Your task to perform on an android device: turn on the 12-hour format for clock Image 0: 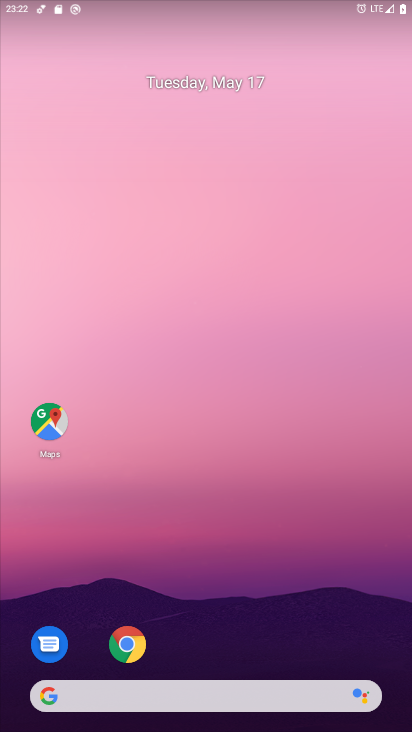
Step 0: press home button
Your task to perform on an android device: turn on the 12-hour format for clock Image 1: 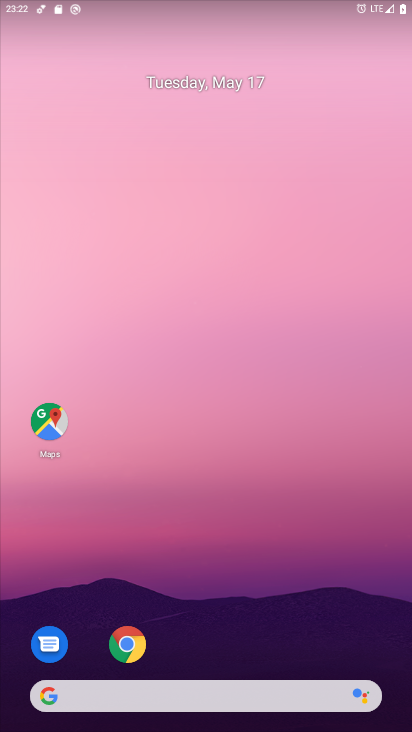
Step 1: drag from (211, 652) to (252, 89)
Your task to perform on an android device: turn on the 12-hour format for clock Image 2: 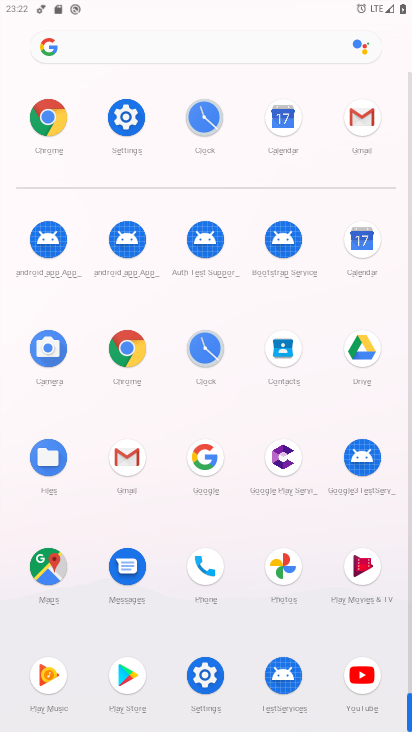
Step 2: click (202, 342)
Your task to perform on an android device: turn on the 12-hour format for clock Image 3: 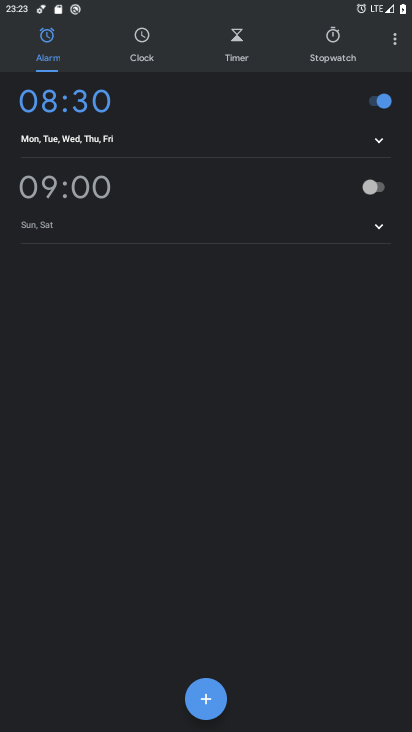
Step 3: click (396, 42)
Your task to perform on an android device: turn on the 12-hour format for clock Image 4: 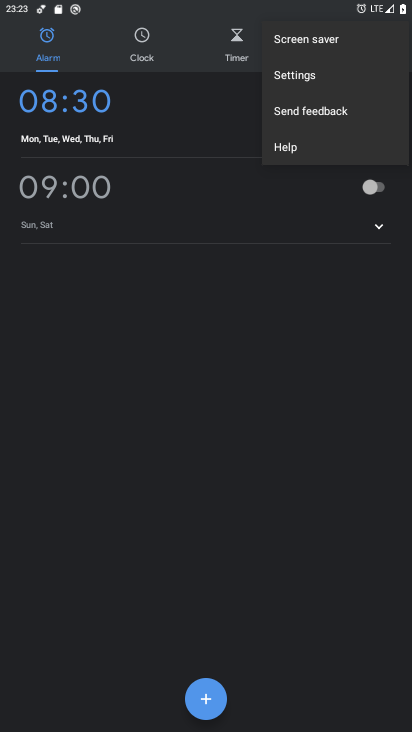
Step 4: click (325, 74)
Your task to perform on an android device: turn on the 12-hour format for clock Image 5: 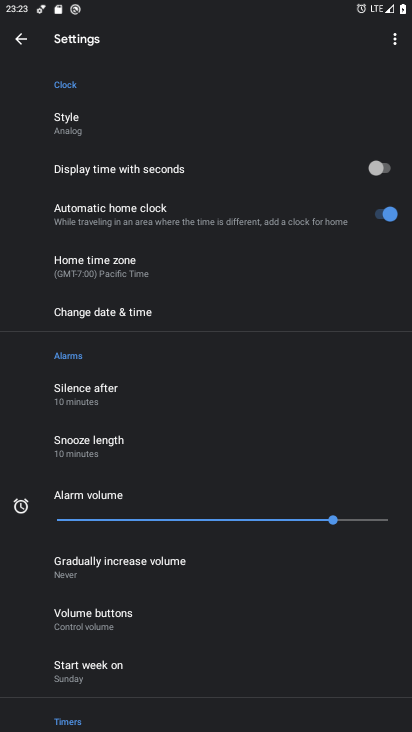
Step 5: click (157, 309)
Your task to perform on an android device: turn on the 12-hour format for clock Image 6: 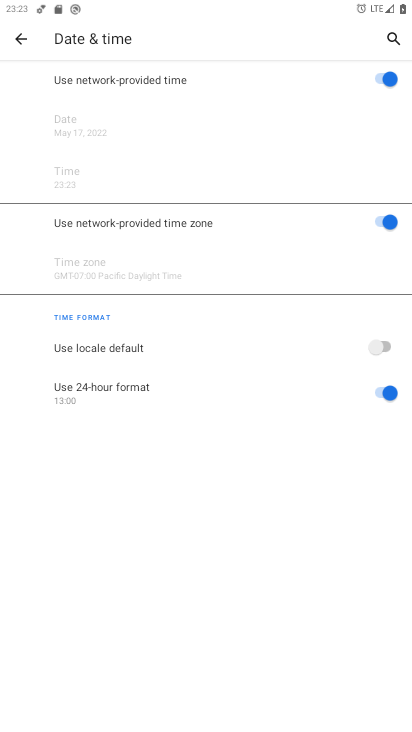
Step 6: click (379, 389)
Your task to perform on an android device: turn on the 12-hour format for clock Image 7: 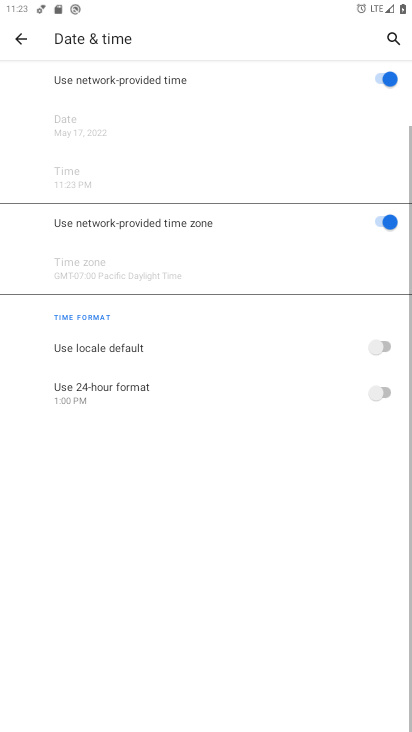
Step 7: click (384, 338)
Your task to perform on an android device: turn on the 12-hour format for clock Image 8: 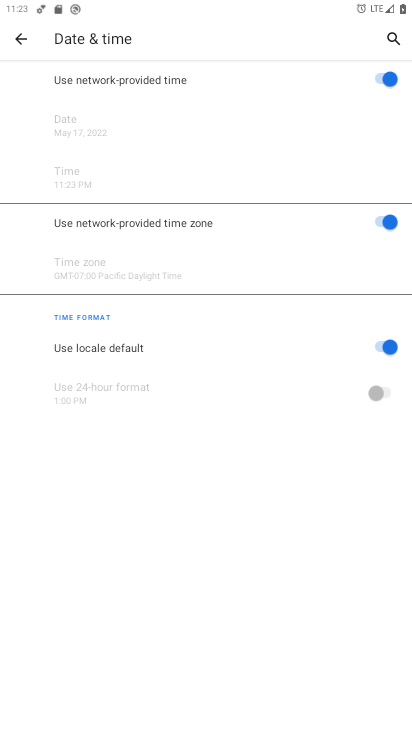
Step 8: task complete